Your task to perform on an android device: Set the phone to "Do not disturb". Image 0: 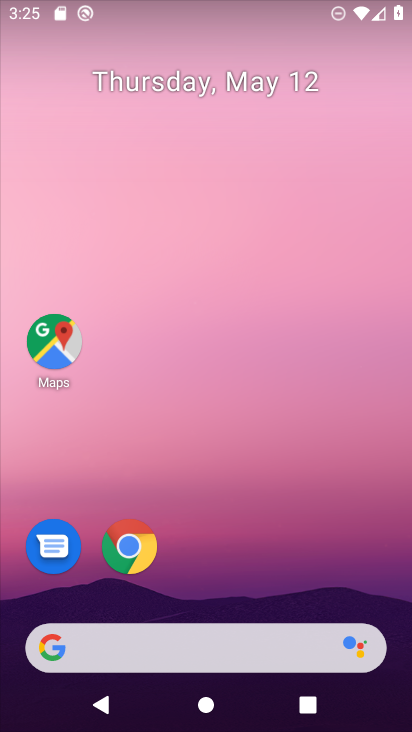
Step 0: drag from (190, 48) to (220, 571)
Your task to perform on an android device: Set the phone to "Do not disturb". Image 1: 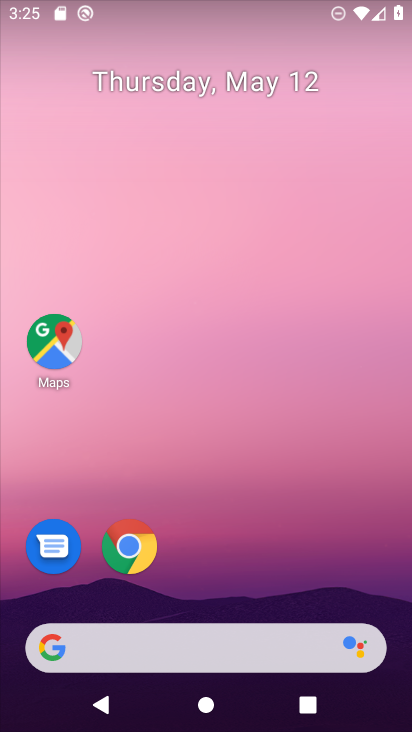
Step 1: drag from (201, 95) to (171, 395)
Your task to perform on an android device: Set the phone to "Do not disturb". Image 2: 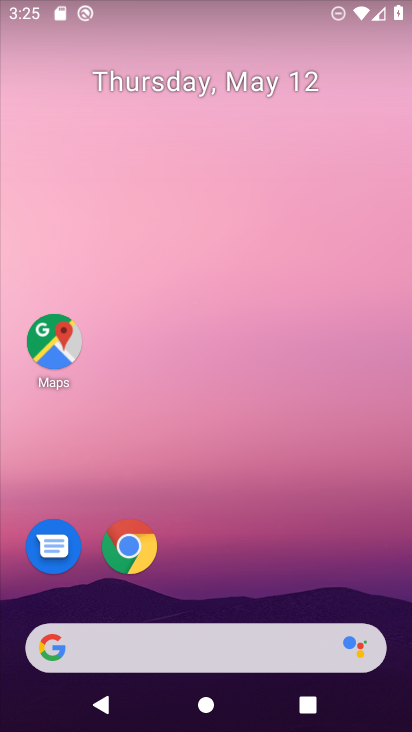
Step 2: drag from (174, 100) to (178, 576)
Your task to perform on an android device: Set the phone to "Do not disturb". Image 3: 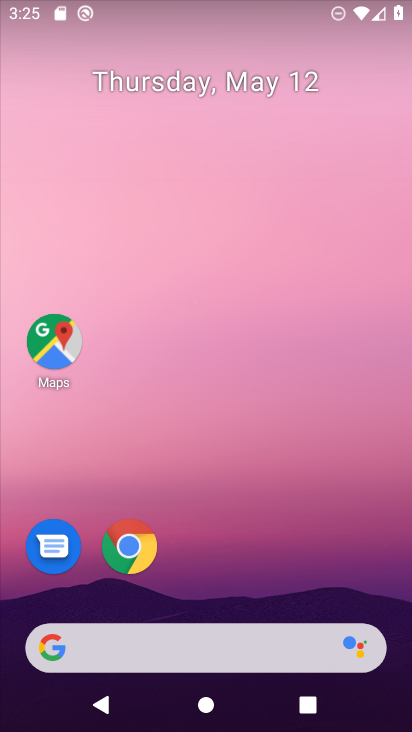
Step 3: drag from (205, 438) to (213, 245)
Your task to perform on an android device: Set the phone to "Do not disturb". Image 4: 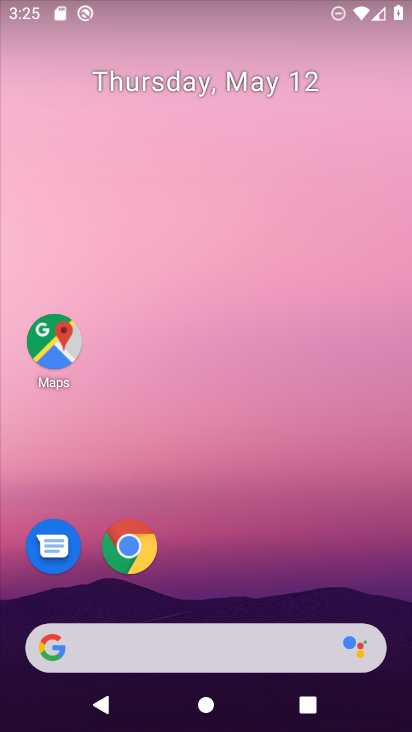
Step 4: drag from (109, 706) to (184, 424)
Your task to perform on an android device: Set the phone to "Do not disturb". Image 5: 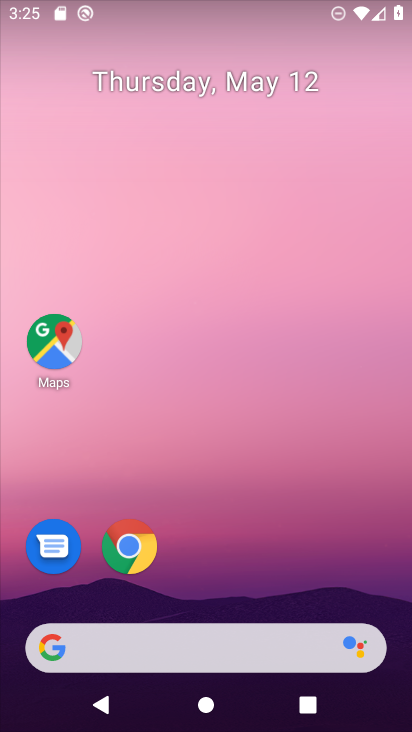
Step 5: drag from (173, 609) to (235, 260)
Your task to perform on an android device: Set the phone to "Do not disturb". Image 6: 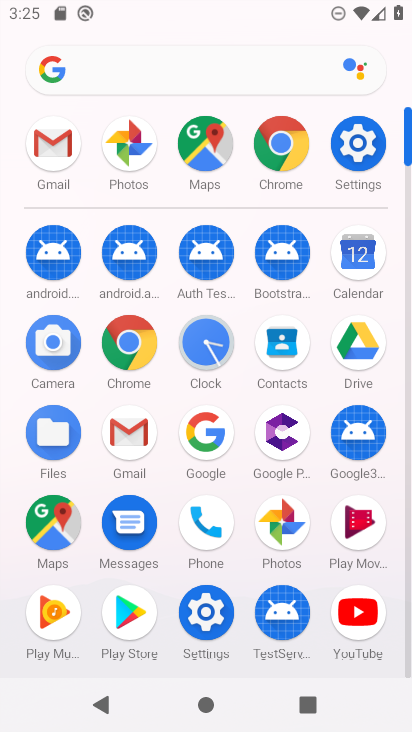
Step 6: drag from (216, 0) to (191, 400)
Your task to perform on an android device: Set the phone to "Do not disturb". Image 7: 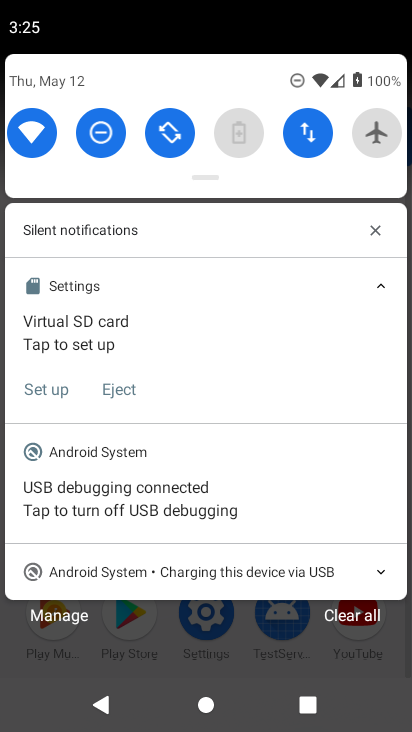
Step 7: click (95, 132)
Your task to perform on an android device: Set the phone to "Do not disturb". Image 8: 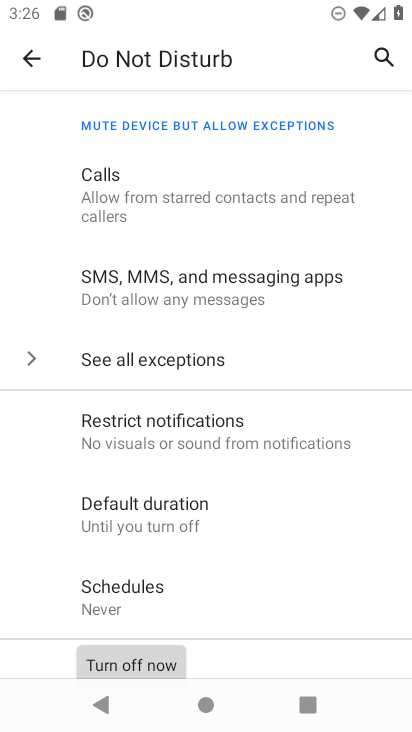
Step 8: task complete